Your task to perform on an android device: Turn on the flashlight Image 0: 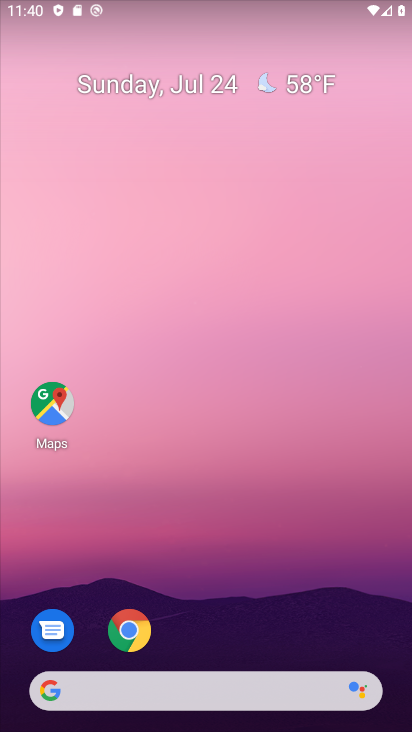
Step 0: drag from (268, 636) to (219, 90)
Your task to perform on an android device: Turn on the flashlight Image 1: 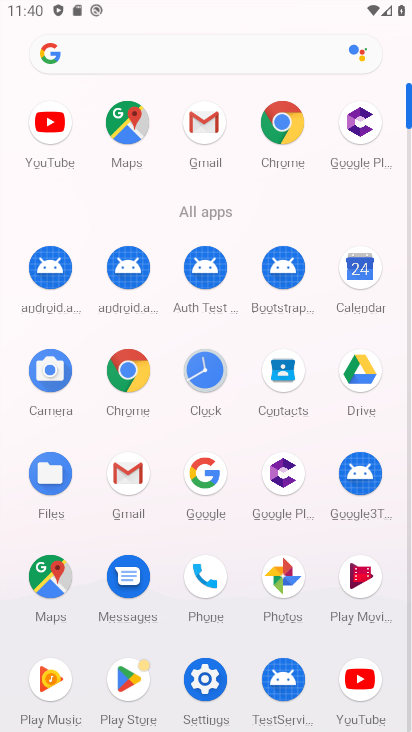
Step 1: drag from (149, 2) to (148, 352)
Your task to perform on an android device: Turn on the flashlight Image 2: 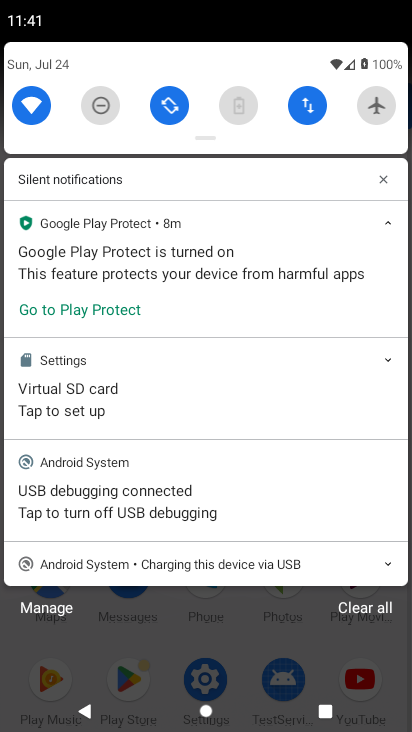
Step 2: drag from (271, 109) to (263, 725)
Your task to perform on an android device: Turn on the flashlight Image 3: 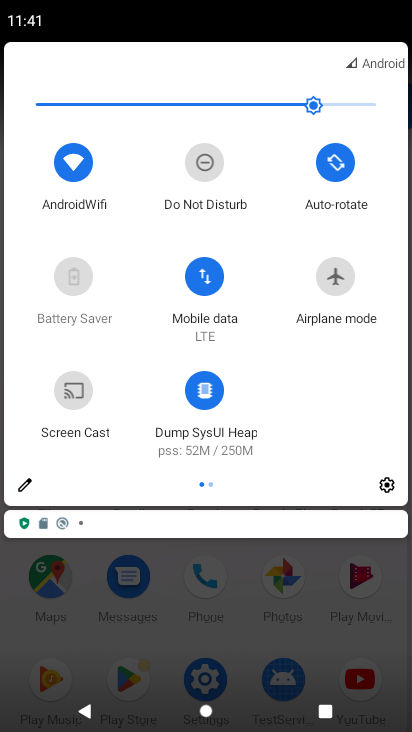
Step 3: click (32, 478)
Your task to perform on an android device: Turn on the flashlight Image 4: 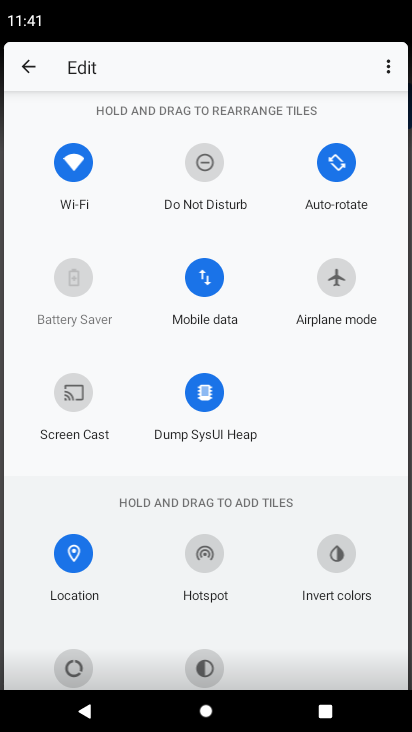
Step 4: task complete